Your task to perform on an android device: Toggle the flashlight Image 0: 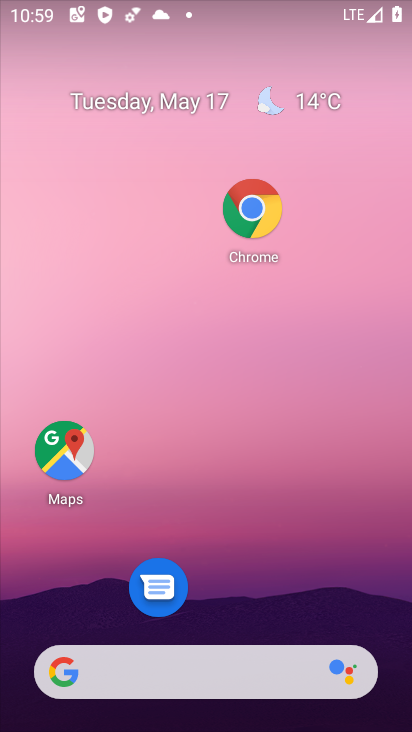
Step 0: click (237, 242)
Your task to perform on an android device: Toggle the flashlight Image 1: 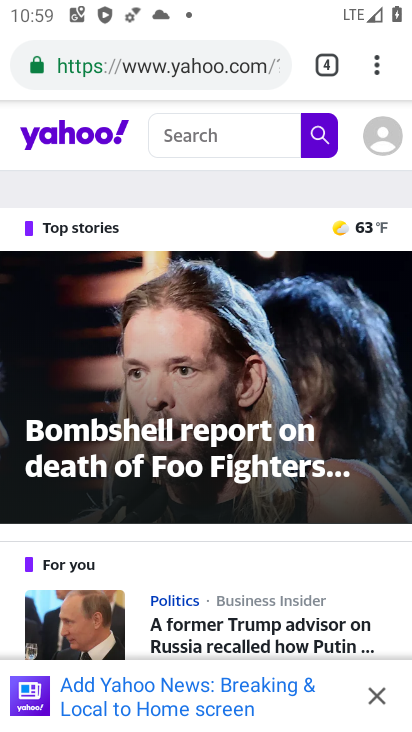
Step 1: press home button
Your task to perform on an android device: Toggle the flashlight Image 2: 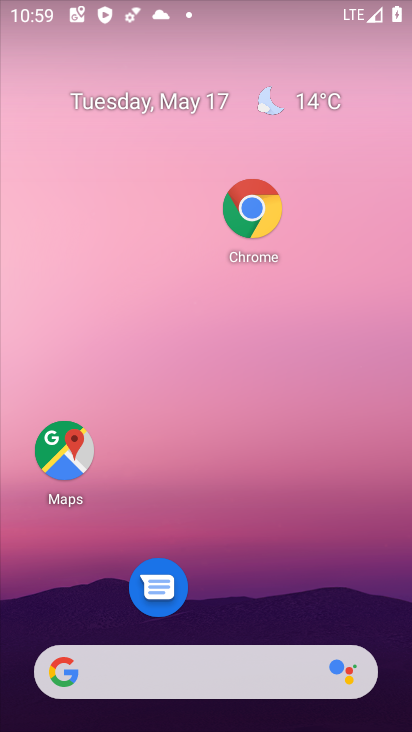
Step 2: drag from (353, 557) to (325, 130)
Your task to perform on an android device: Toggle the flashlight Image 3: 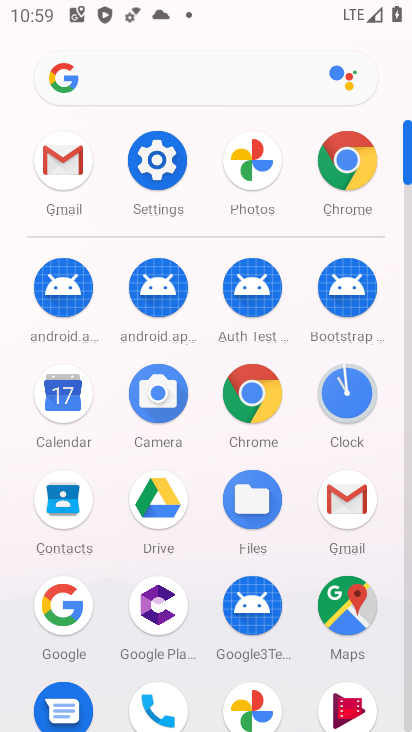
Step 3: click (180, 169)
Your task to perform on an android device: Toggle the flashlight Image 4: 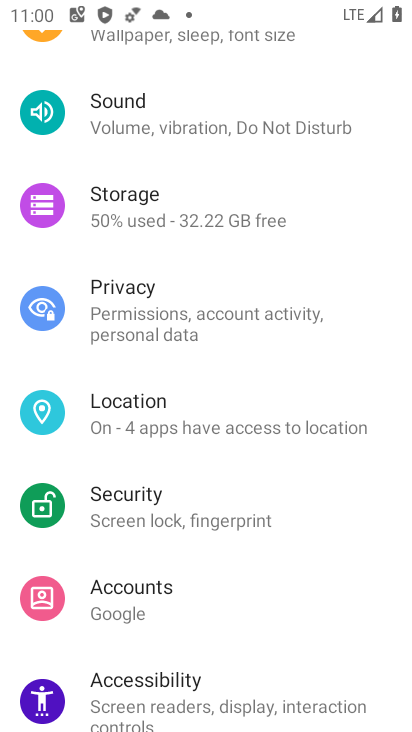
Step 4: drag from (288, 160) to (360, 530)
Your task to perform on an android device: Toggle the flashlight Image 5: 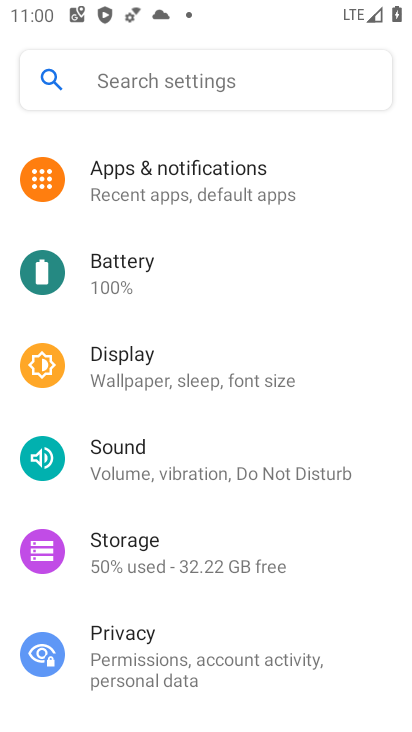
Step 5: click (239, 200)
Your task to perform on an android device: Toggle the flashlight Image 6: 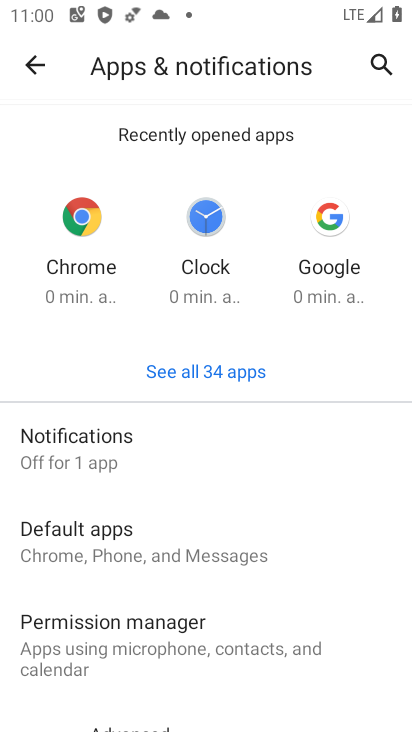
Step 6: drag from (336, 599) to (336, 228)
Your task to perform on an android device: Toggle the flashlight Image 7: 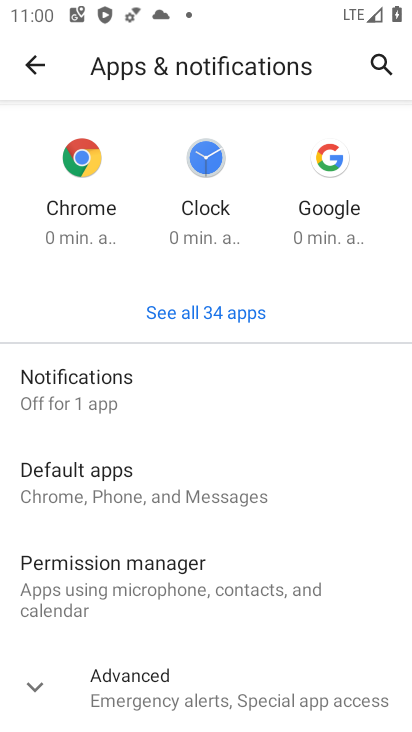
Step 7: click (269, 675)
Your task to perform on an android device: Toggle the flashlight Image 8: 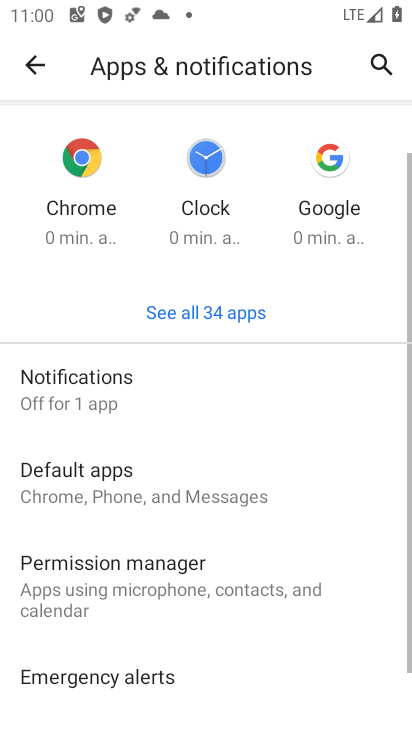
Step 8: drag from (277, 666) to (335, 28)
Your task to perform on an android device: Toggle the flashlight Image 9: 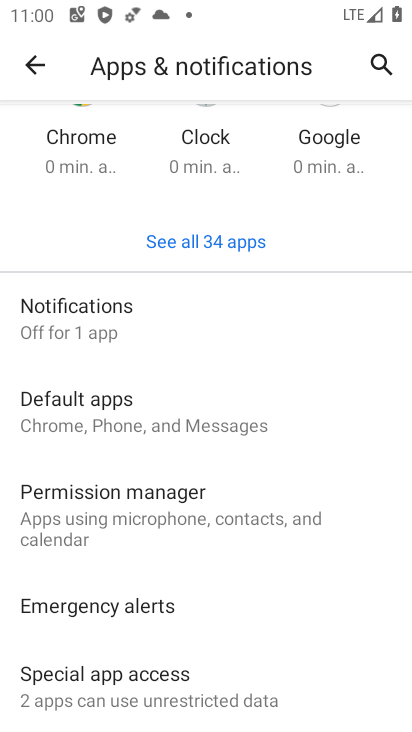
Step 9: click (209, 714)
Your task to perform on an android device: Toggle the flashlight Image 10: 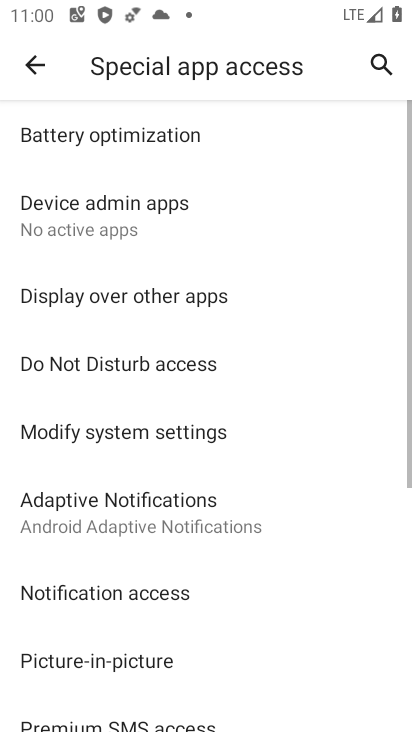
Step 10: task complete